Your task to perform on an android device: Open privacy settings Image 0: 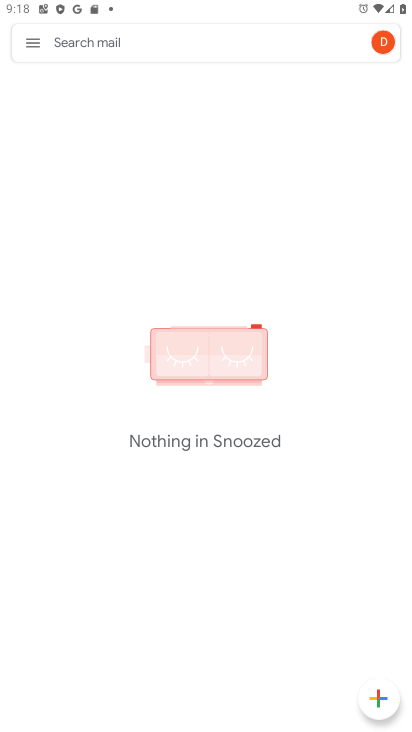
Step 0: press home button
Your task to perform on an android device: Open privacy settings Image 1: 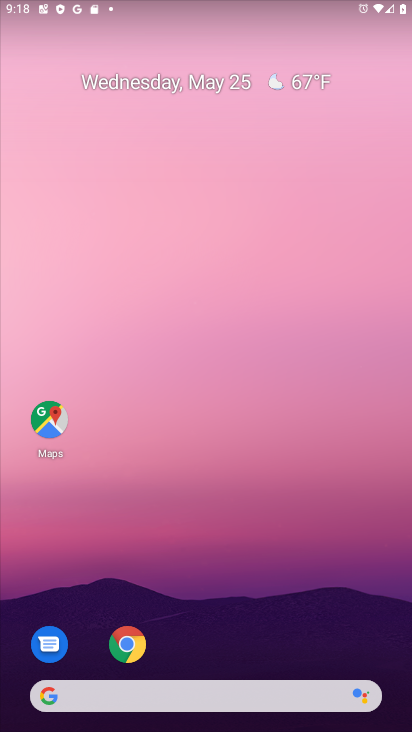
Step 1: drag from (224, 667) to (222, 66)
Your task to perform on an android device: Open privacy settings Image 2: 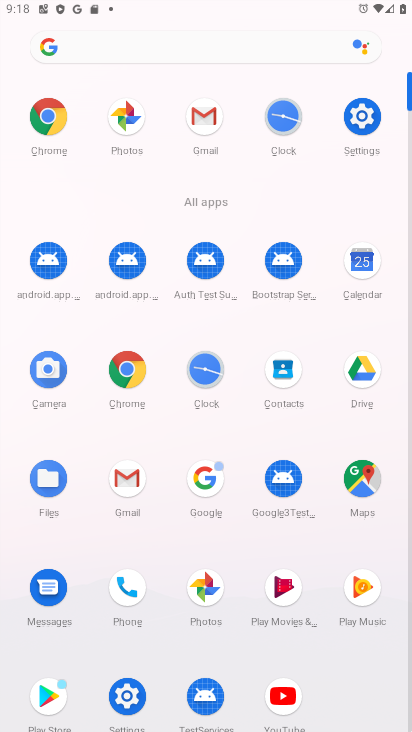
Step 2: click (360, 110)
Your task to perform on an android device: Open privacy settings Image 3: 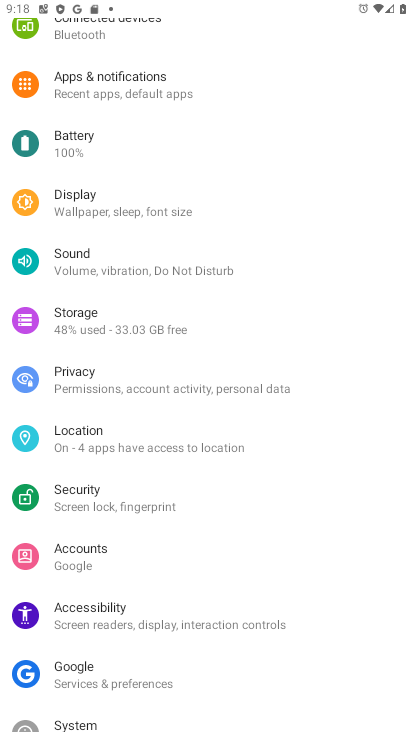
Step 3: click (106, 373)
Your task to perform on an android device: Open privacy settings Image 4: 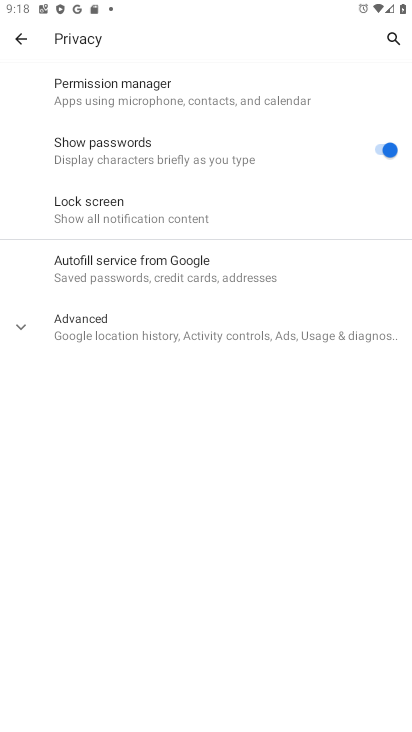
Step 4: click (18, 317)
Your task to perform on an android device: Open privacy settings Image 5: 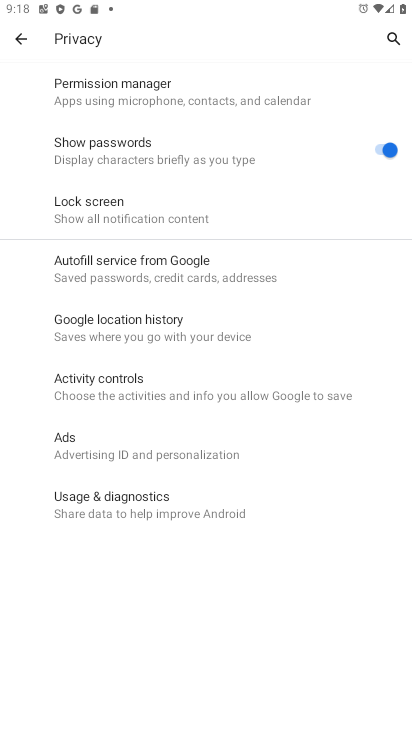
Step 5: task complete